Your task to perform on an android device: set an alarm Image 0: 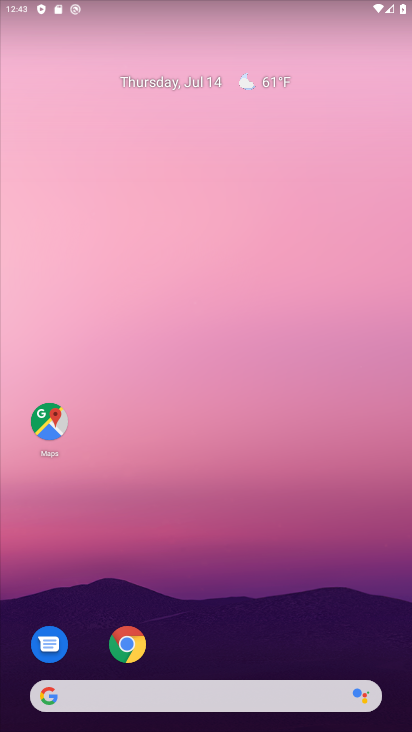
Step 0: task complete